Your task to perform on an android device: set the stopwatch Image 0: 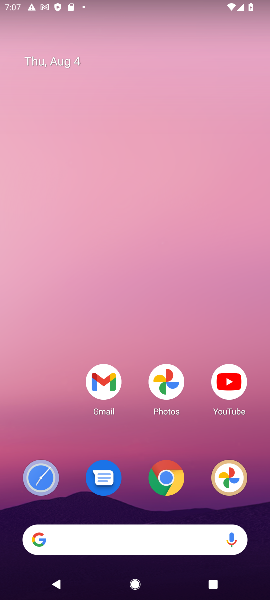
Step 0: drag from (134, 510) to (145, 219)
Your task to perform on an android device: set the stopwatch Image 1: 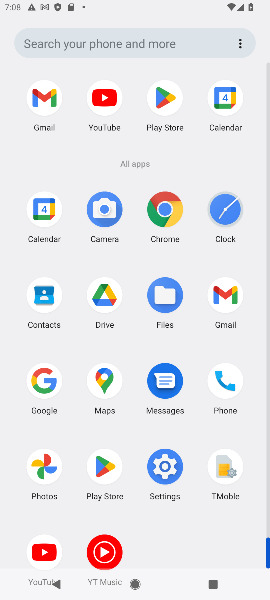
Step 1: click (225, 210)
Your task to perform on an android device: set the stopwatch Image 2: 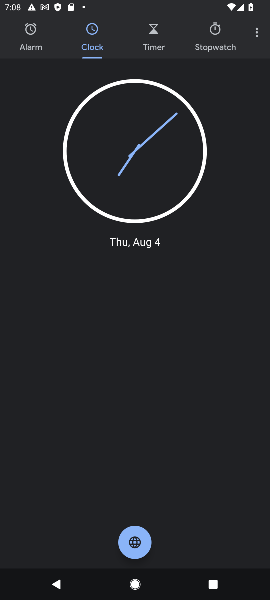
Step 2: click (224, 46)
Your task to perform on an android device: set the stopwatch Image 3: 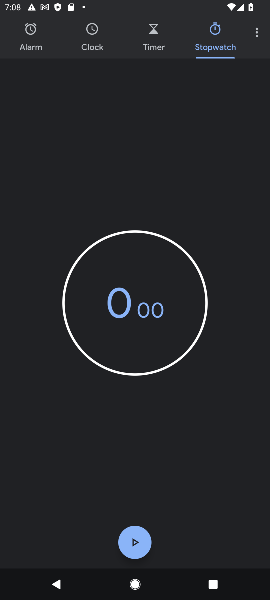
Step 3: click (190, 278)
Your task to perform on an android device: set the stopwatch Image 4: 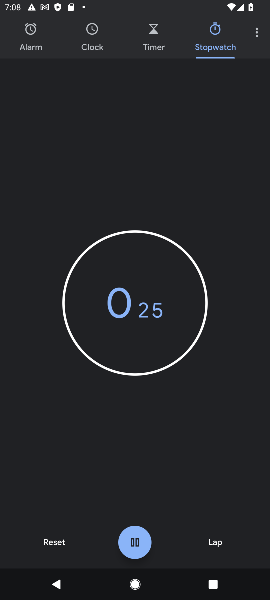
Step 4: task complete